Your task to perform on an android device: turn off data saver in the chrome app Image 0: 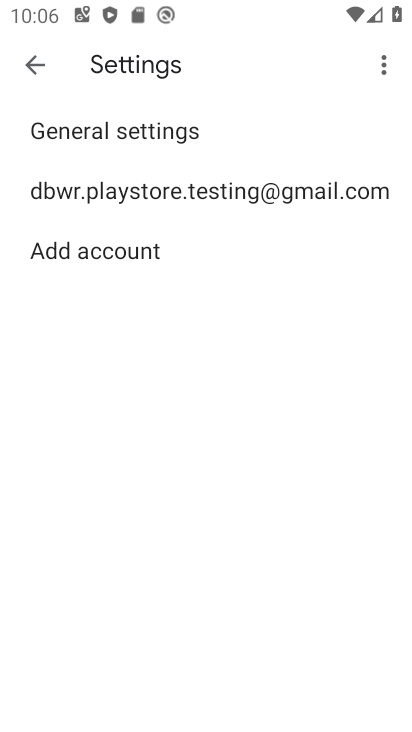
Step 0: press home button
Your task to perform on an android device: turn off data saver in the chrome app Image 1: 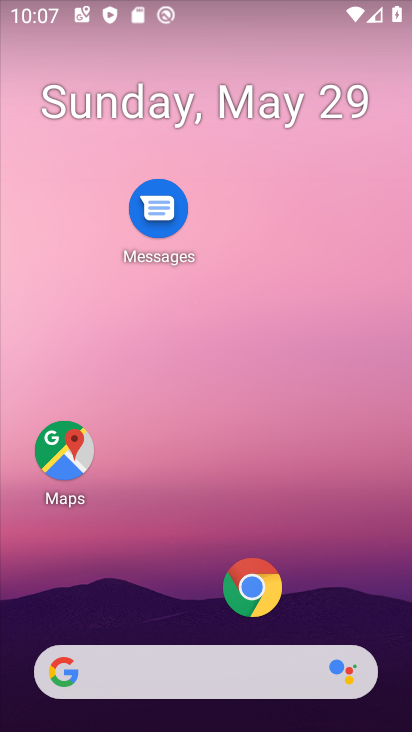
Step 1: click (266, 586)
Your task to perform on an android device: turn off data saver in the chrome app Image 2: 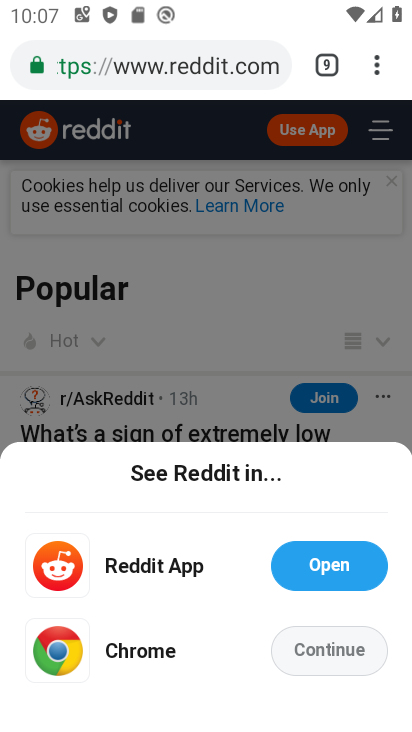
Step 2: drag from (380, 68) to (181, 634)
Your task to perform on an android device: turn off data saver in the chrome app Image 3: 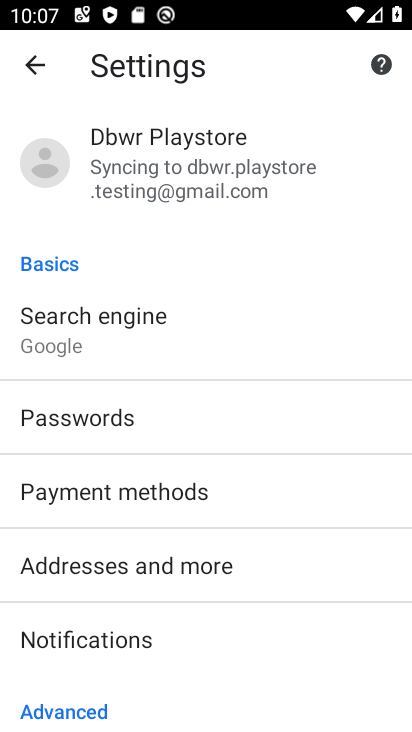
Step 3: drag from (161, 647) to (213, 191)
Your task to perform on an android device: turn off data saver in the chrome app Image 4: 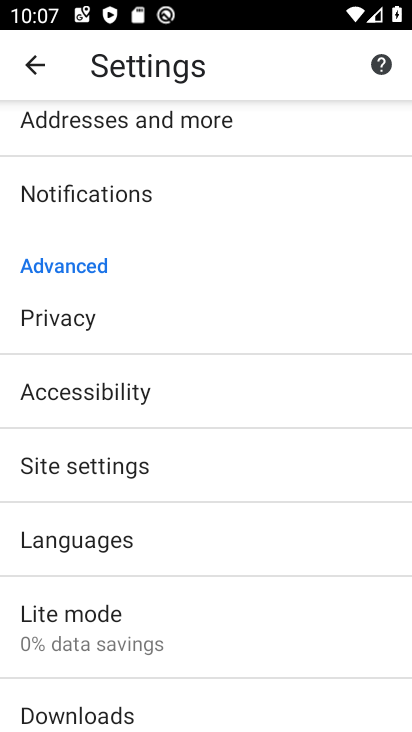
Step 4: click (77, 640)
Your task to perform on an android device: turn off data saver in the chrome app Image 5: 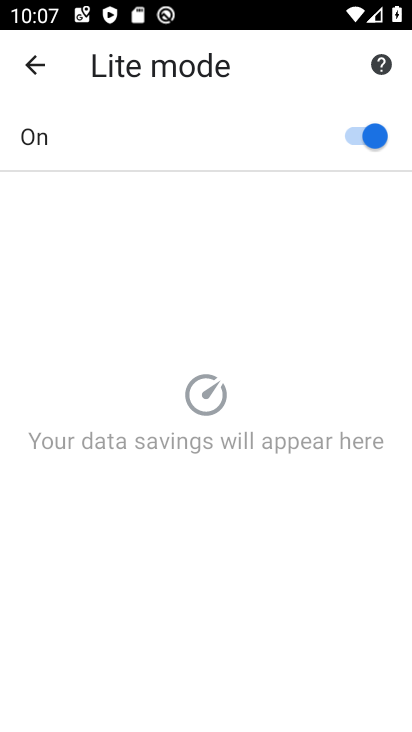
Step 5: click (358, 135)
Your task to perform on an android device: turn off data saver in the chrome app Image 6: 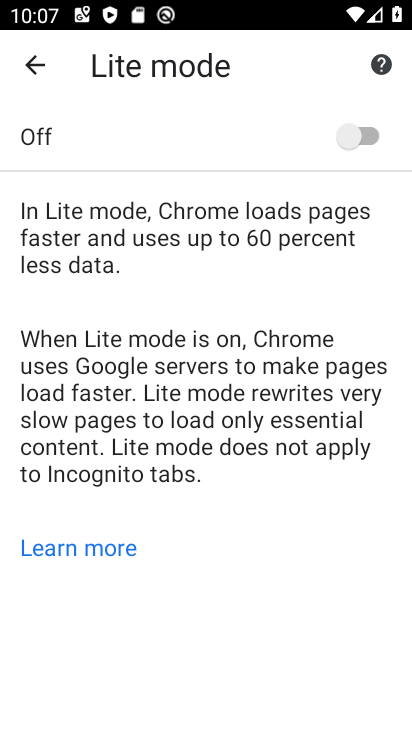
Step 6: task complete